Your task to perform on an android device: Open sound settings Image 0: 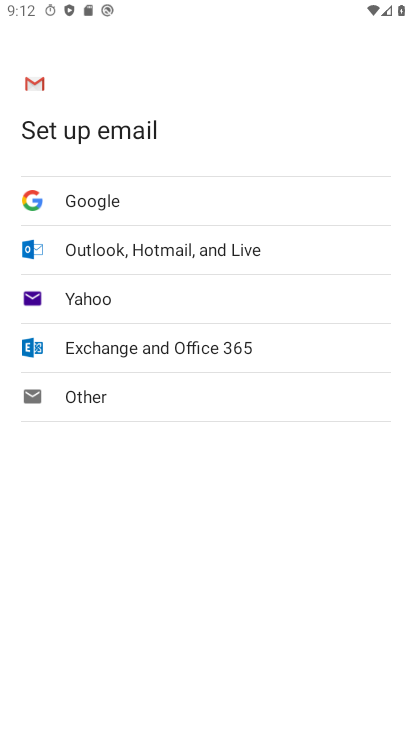
Step 0: press back button
Your task to perform on an android device: Open sound settings Image 1: 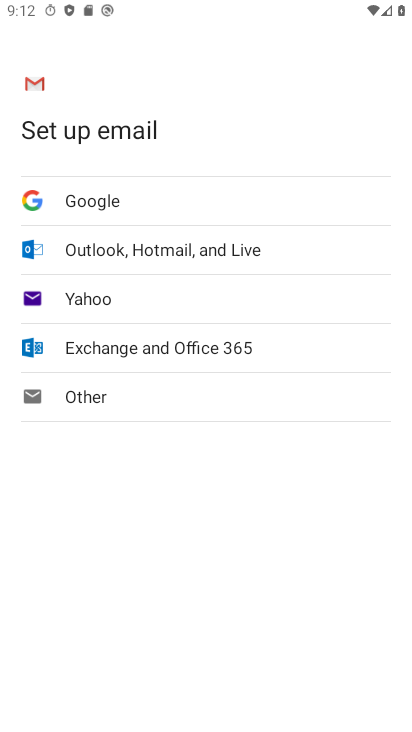
Step 1: press back button
Your task to perform on an android device: Open sound settings Image 2: 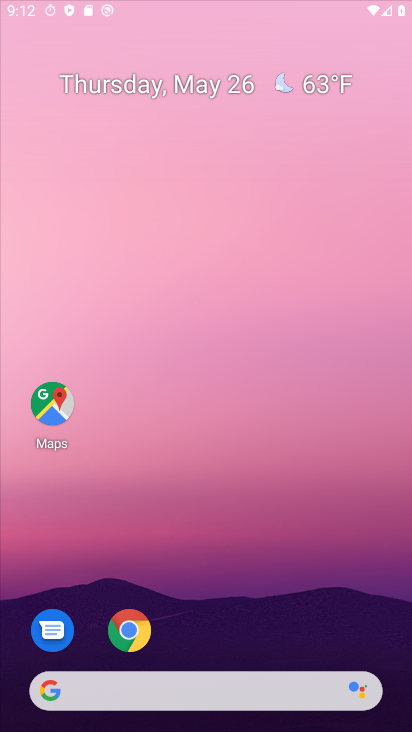
Step 2: press back button
Your task to perform on an android device: Open sound settings Image 3: 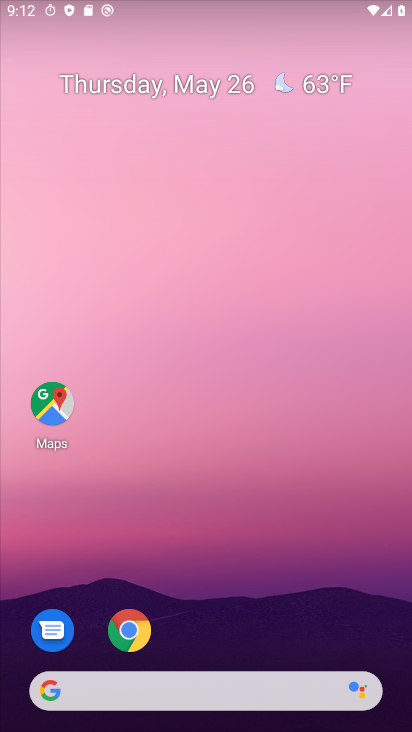
Step 3: press back button
Your task to perform on an android device: Open sound settings Image 4: 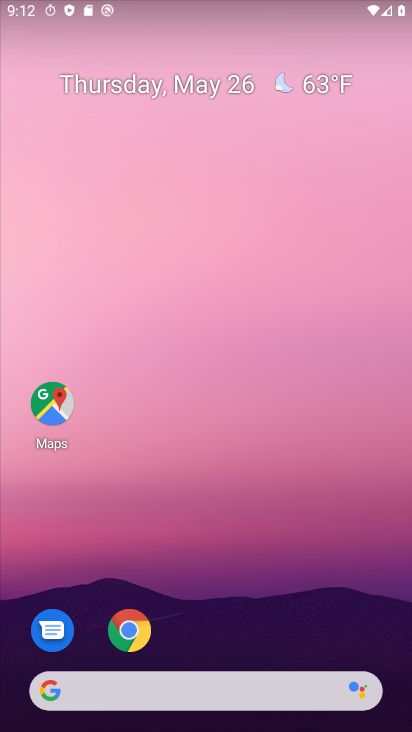
Step 4: drag from (277, 678) to (139, 140)
Your task to perform on an android device: Open sound settings Image 5: 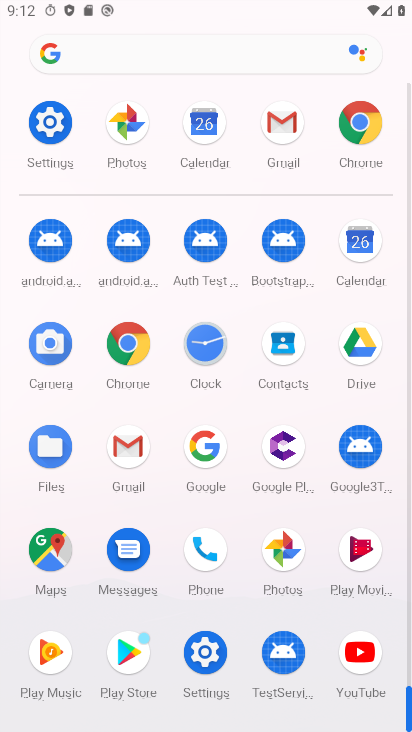
Step 5: click (205, 655)
Your task to perform on an android device: Open sound settings Image 6: 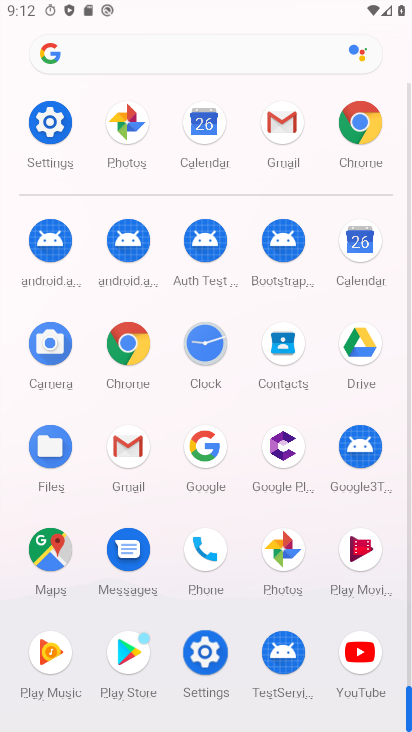
Step 6: click (192, 645)
Your task to perform on an android device: Open sound settings Image 7: 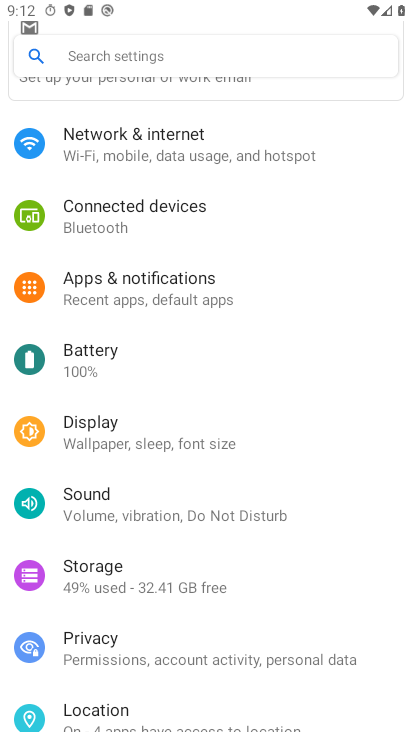
Step 7: click (92, 502)
Your task to perform on an android device: Open sound settings Image 8: 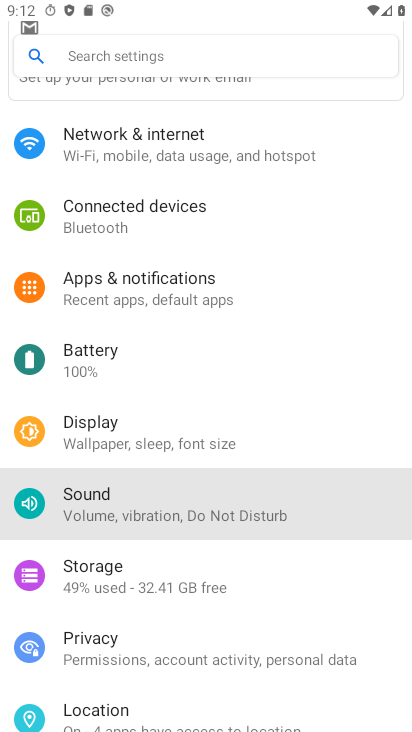
Step 8: click (93, 502)
Your task to perform on an android device: Open sound settings Image 9: 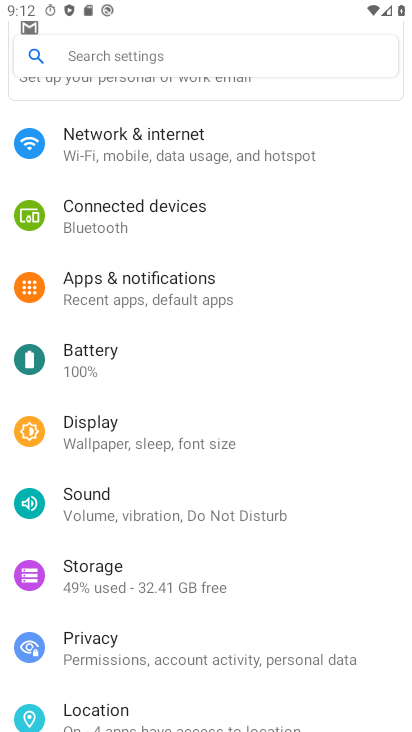
Step 9: click (94, 503)
Your task to perform on an android device: Open sound settings Image 10: 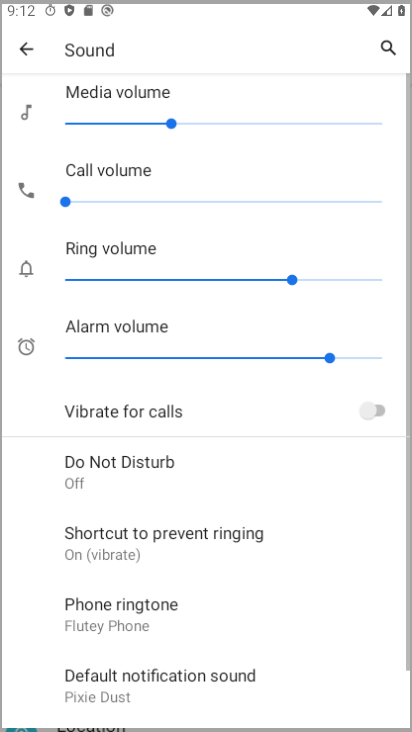
Step 10: click (95, 503)
Your task to perform on an android device: Open sound settings Image 11: 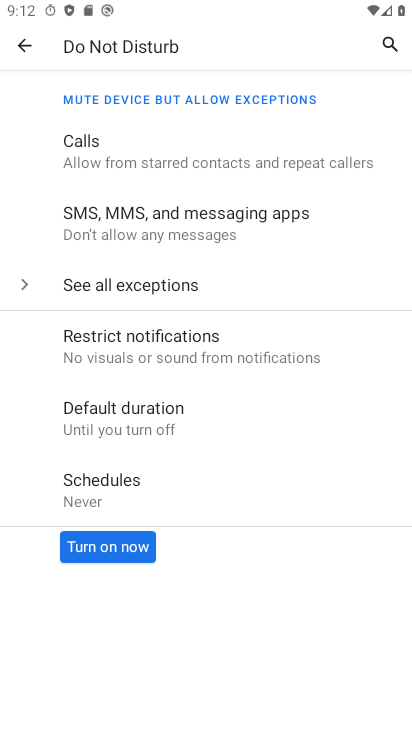
Step 11: click (87, 549)
Your task to perform on an android device: Open sound settings Image 12: 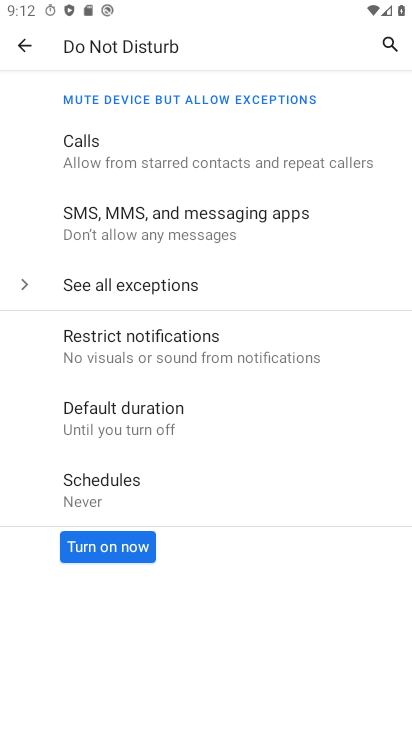
Step 12: click (89, 550)
Your task to perform on an android device: Open sound settings Image 13: 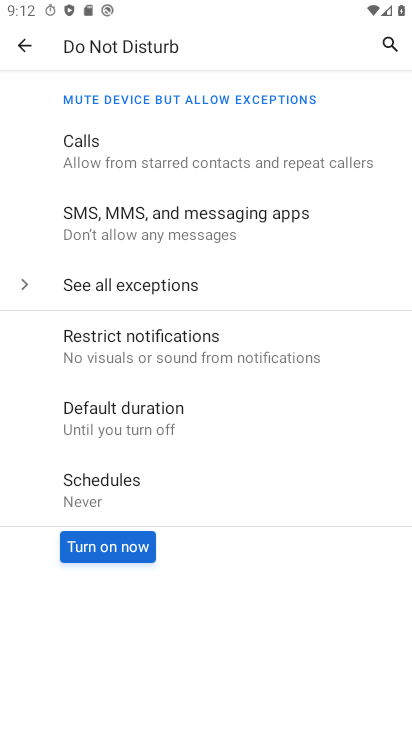
Step 13: click (93, 555)
Your task to perform on an android device: Open sound settings Image 14: 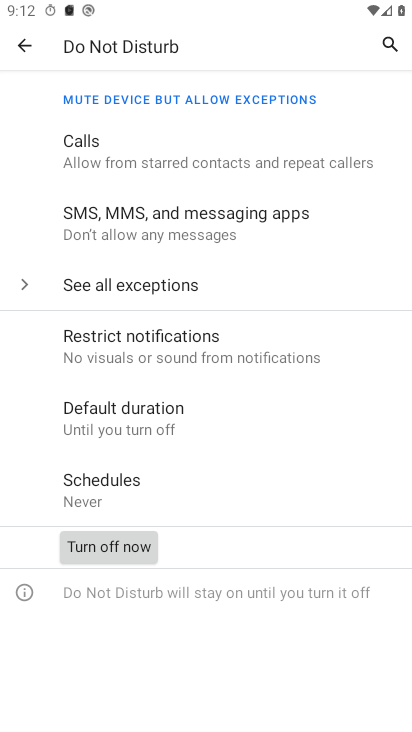
Step 14: click (96, 556)
Your task to perform on an android device: Open sound settings Image 15: 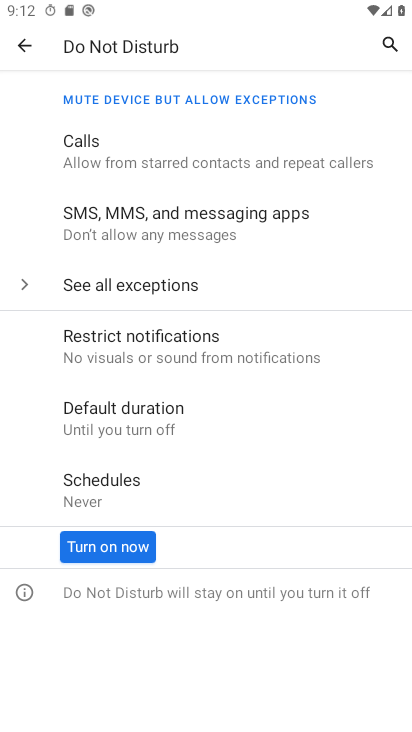
Step 15: click (96, 556)
Your task to perform on an android device: Open sound settings Image 16: 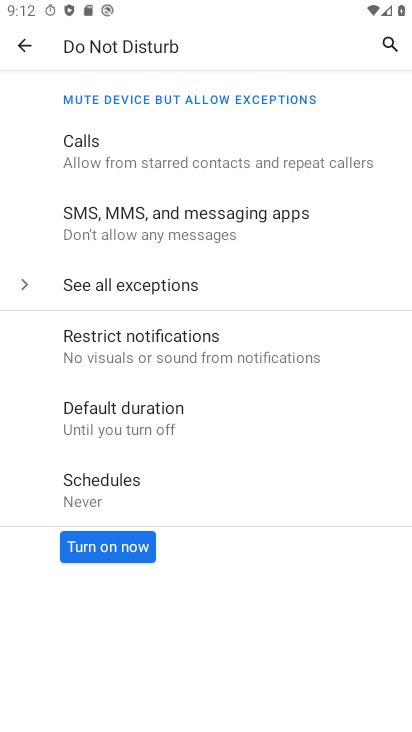
Step 16: task complete